Your task to perform on an android device: turn on the 12-hour format for clock Image 0: 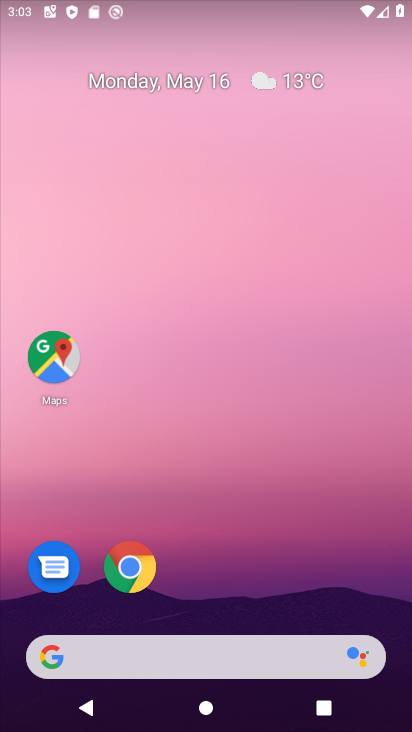
Step 0: drag from (292, 558) to (268, 10)
Your task to perform on an android device: turn on the 12-hour format for clock Image 1: 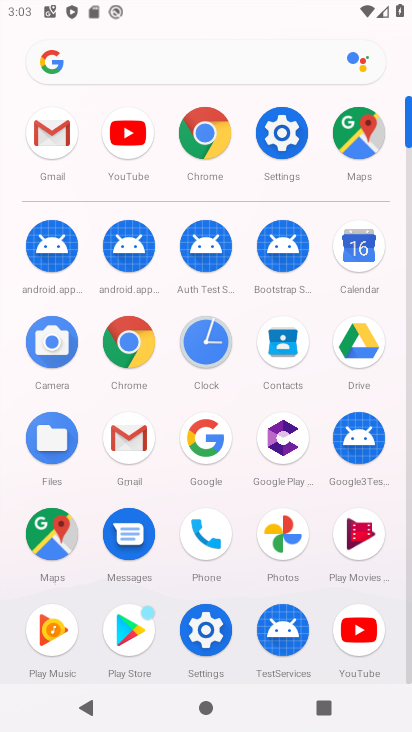
Step 1: click (188, 348)
Your task to perform on an android device: turn on the 12-hour format for clock Image 2: 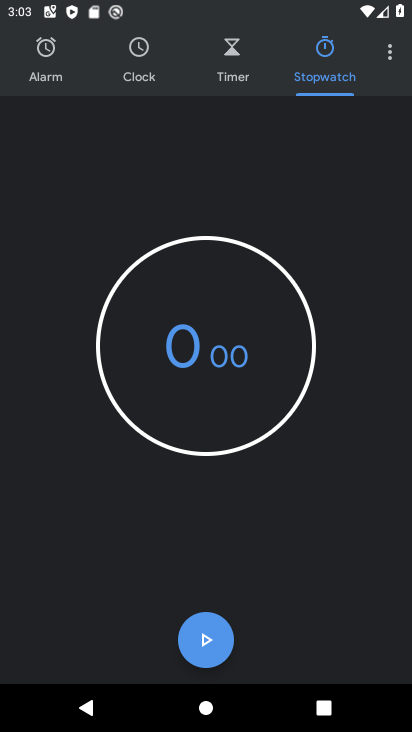
Step 2: drag from (389, 50) to (289, 111)
Your task to perform on an android device: turn on the 12-hour format for clock Image 3: 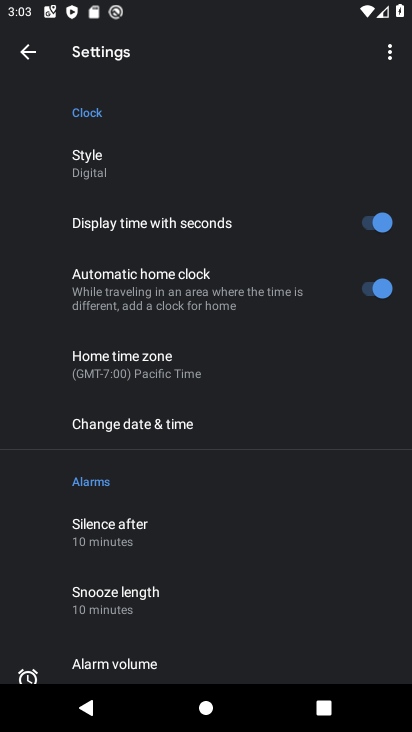
Step 3: click (148, 425)
Your task to perform on an android device: turn on the 12-hour format for clock Image 4: 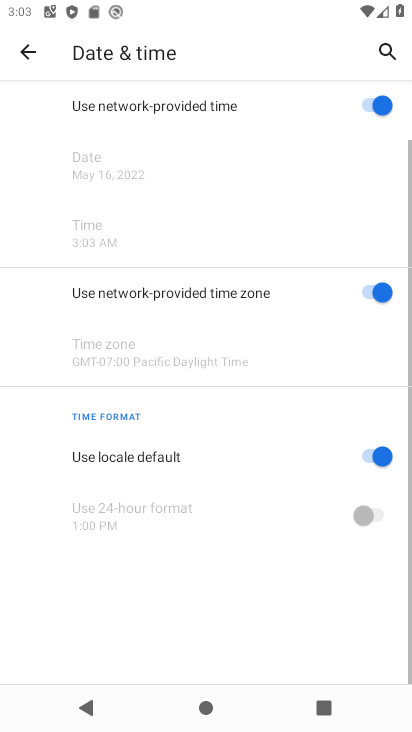
Step 4: task complete